Your task to perform on an android device: Toggle the flashlight Image 0: 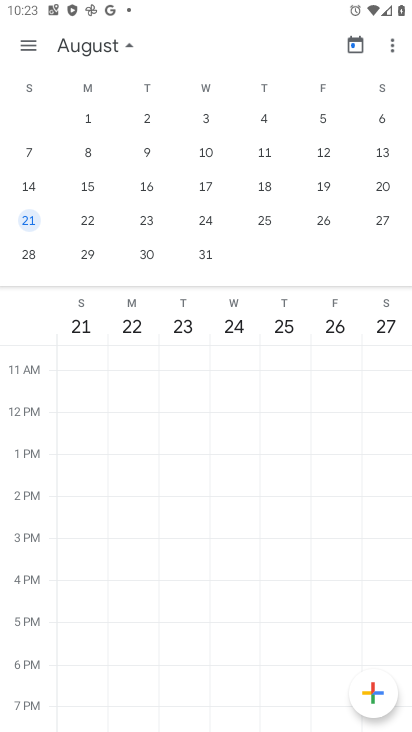
Step 0: press home button
Your task to perform on an android device: Toggle the flashlight Image 1: 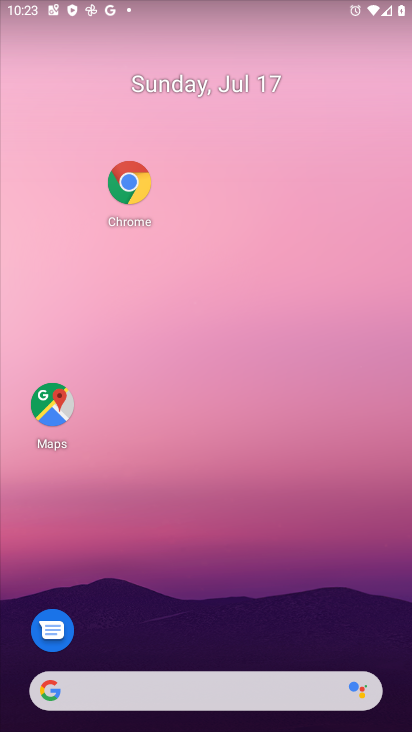
Step 1: task complete